Your task to perform on an android device: turn on wifi Image 0: 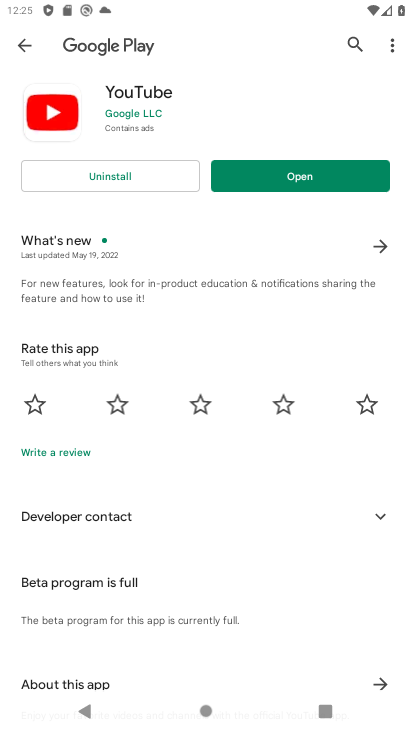
Step 0: press back button
Your task to perform on an android device: turn on wifi Image 1: 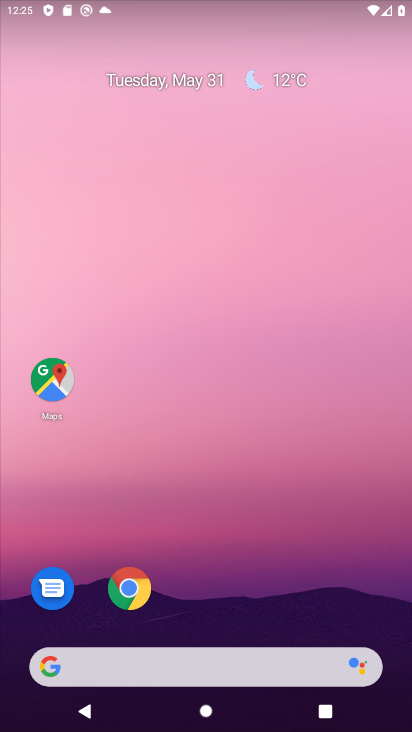
Step 1: drag from (397, 702) to (408, 116)
Your task to perform on an android device: turn on wifi Image 2: 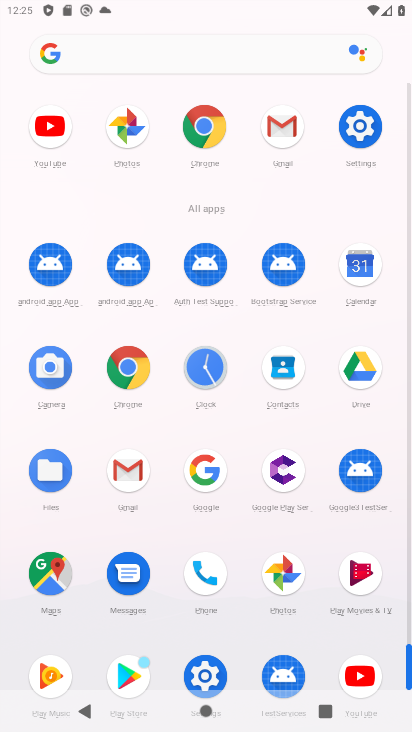
Step 2: click (210, 670)
Your task to perform on an android device: turn on wifi Image 3: 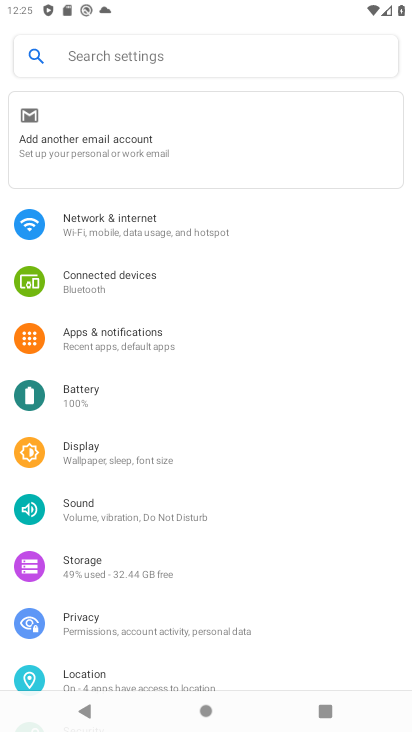
Step 3: click (155, 215)
Your task to perform on an android device: turn on wifi Image 4: 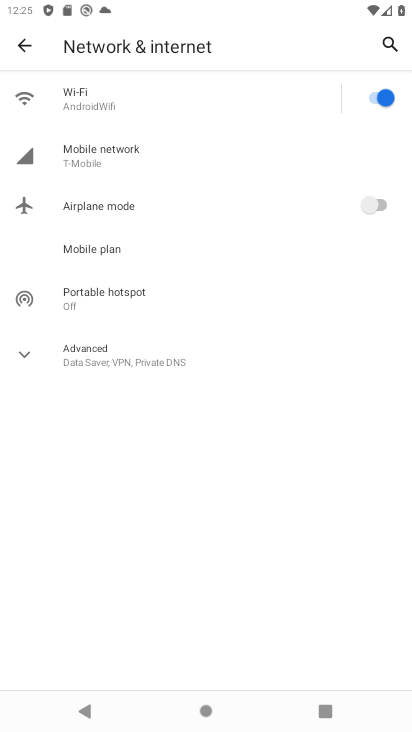
Step 4: task complete